Your task to perform on an android device: Open the calendar and show me this week's events Image 0: 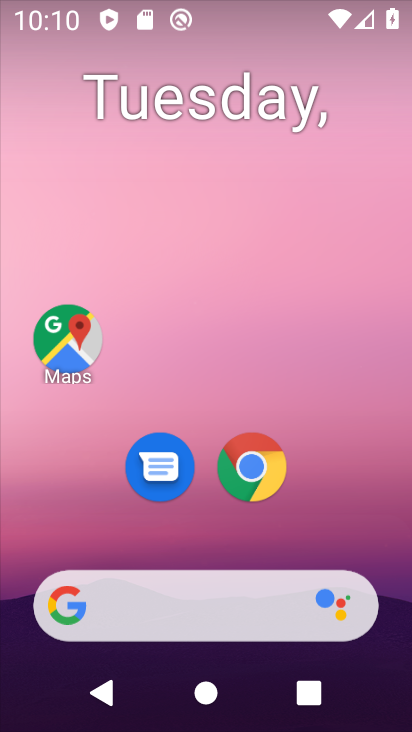
Step 0: drag from (405, 608) to (359, 88)
Your task to perform on an android device: Open the calendar and show me this week's events Image 1: 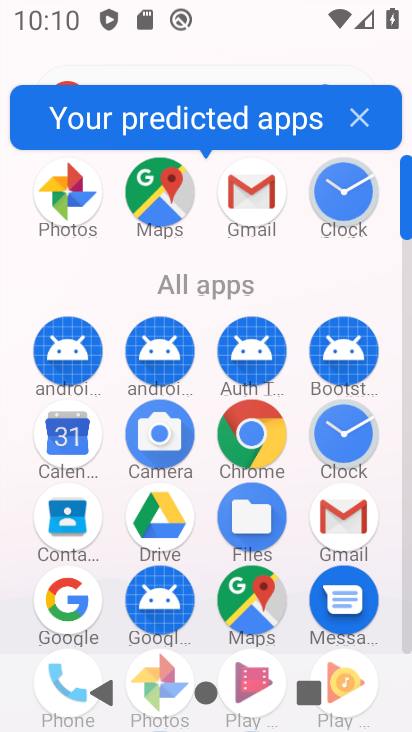
Step 1: click (65, 434)
Your task to perform on an android device: Open the calendar and show me this week's events Image 2: 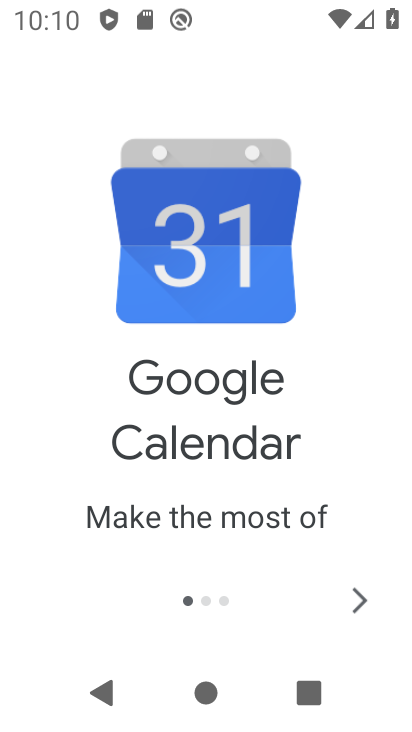
Step 2: click (351, 615)
Your task to perform on an android device: Open the calendar and show me this week's events Image 3: 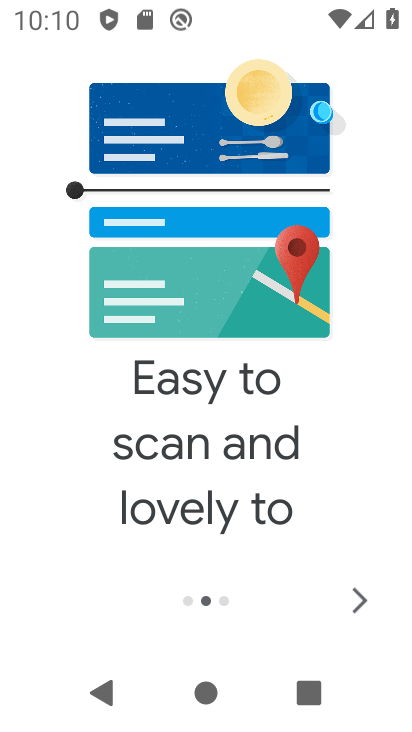
Step 3: click (351, 615)
Your task to perform on an android device: Open the calendar and show me this week's events Image 4: 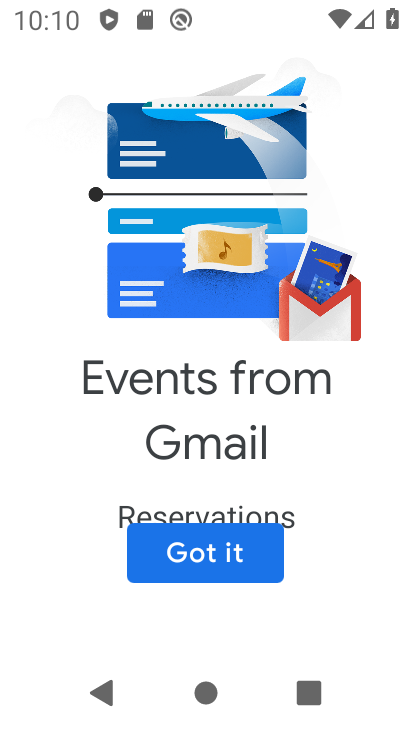
Step 4: click (269, 575)
Your task to perform on an android device: Open the calendar and show me this week's events Image 5: 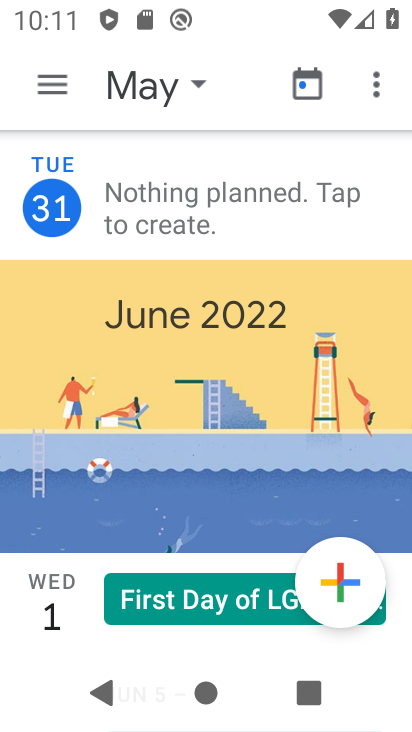
Step 5: click (183, 95)
Your task to perform on an android device: Open the calendar and show me this week's events Image 6: 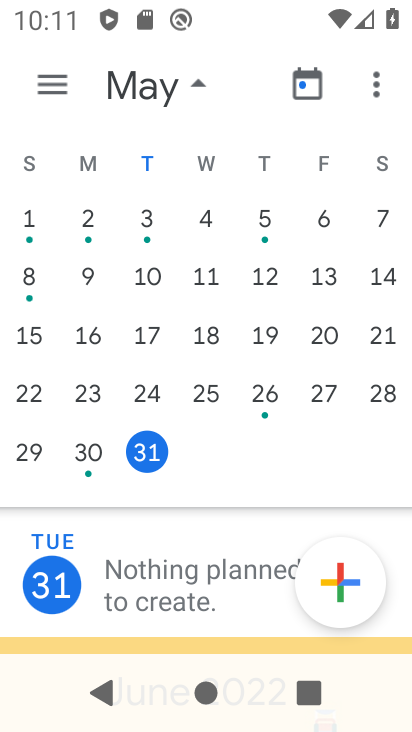
Step 6: click (62, 85)
Your task to perform on an android device: Open the calendar and show me this week's events Image 7: 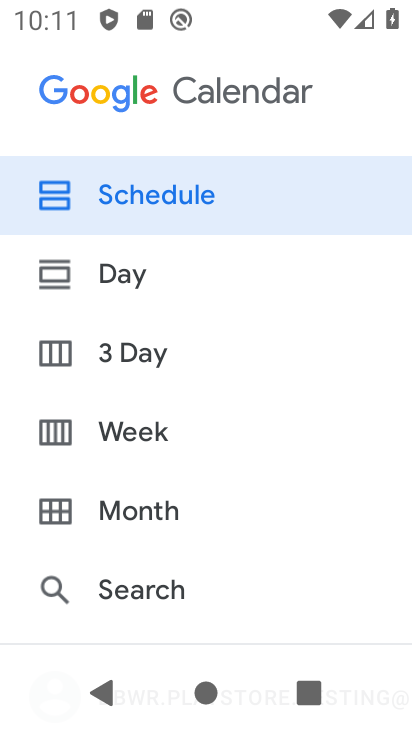
Step 7: drag from (157, 596) to (128, 133)
Your task to perform on an android device: Open the calendar and show me this week's events Image 8: 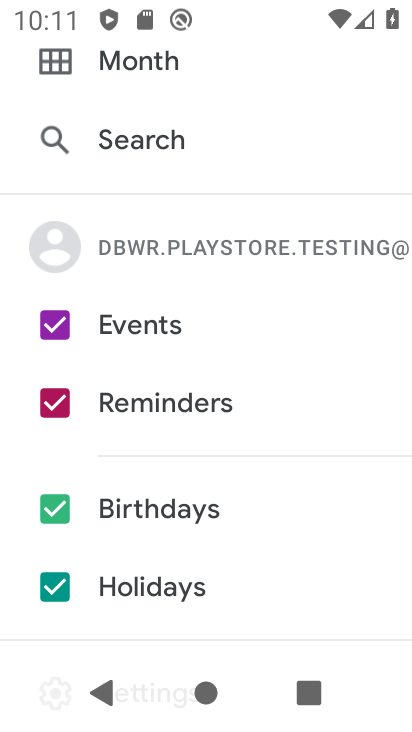
Step 8: click (63, 587)
Your task to perform on an android device: Open the calendar and show me this week's events Image 9: 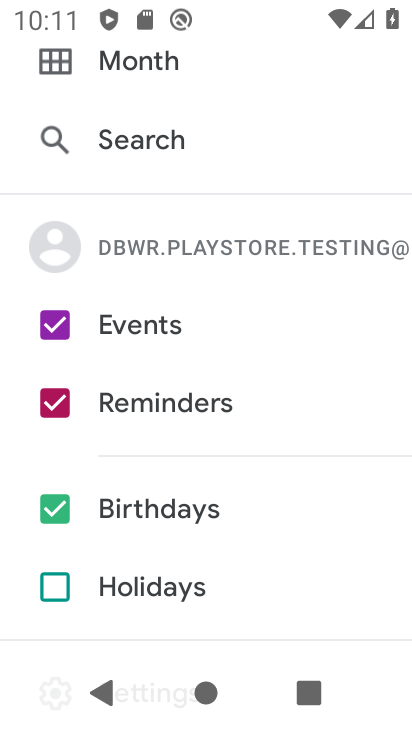
Step 9: click (56, 506)
Your task to perform on an android device: Open the calendar and show me this week's events Image 10: 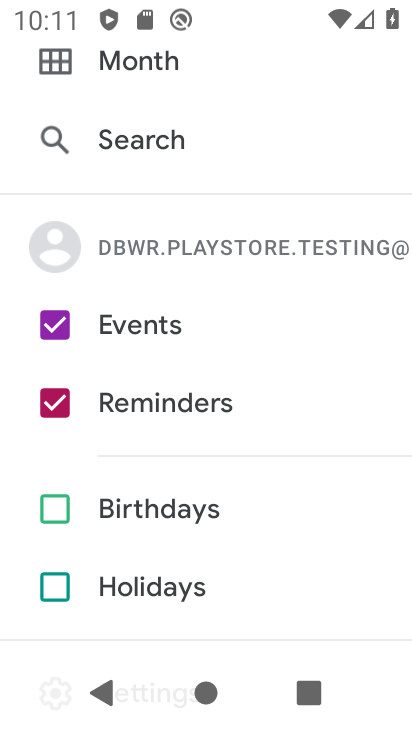
Step 10: click (65, 398)
Your task to perform on an android device: Open the calendar and show me this week's events Image 11: 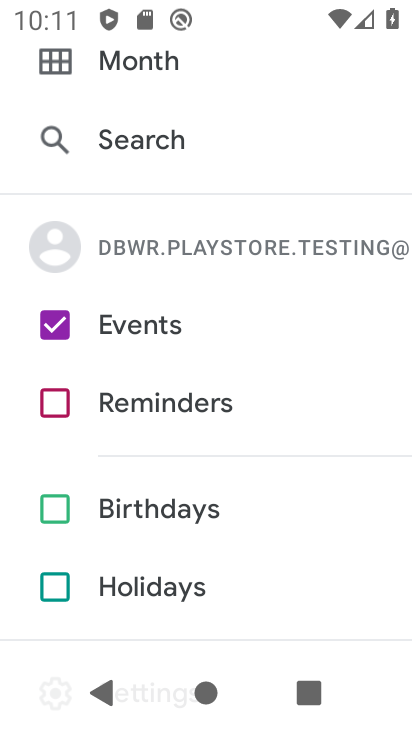
Step 11: drag from (169, 160) to (203, 606)
Your task to perform on an android device: Open the calendar and show me this week's events Image 12: 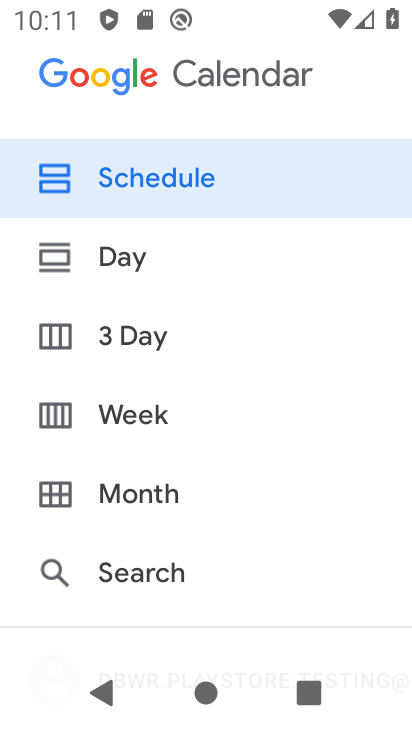
Step 12: click (126, 402)
Your task to perform on an android device: Open the calendar and show me this week's events Image 13: 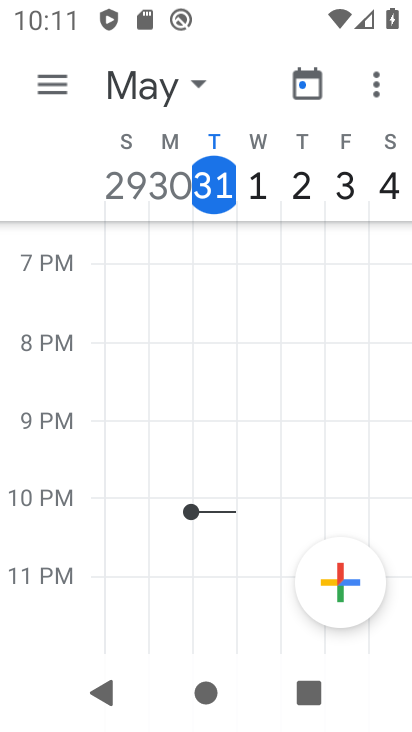
Step 13: task complete